Your task to perform on an android device: Search for bose soundsport free on newegg, select the first entry, and add it to the cart. Image 0: 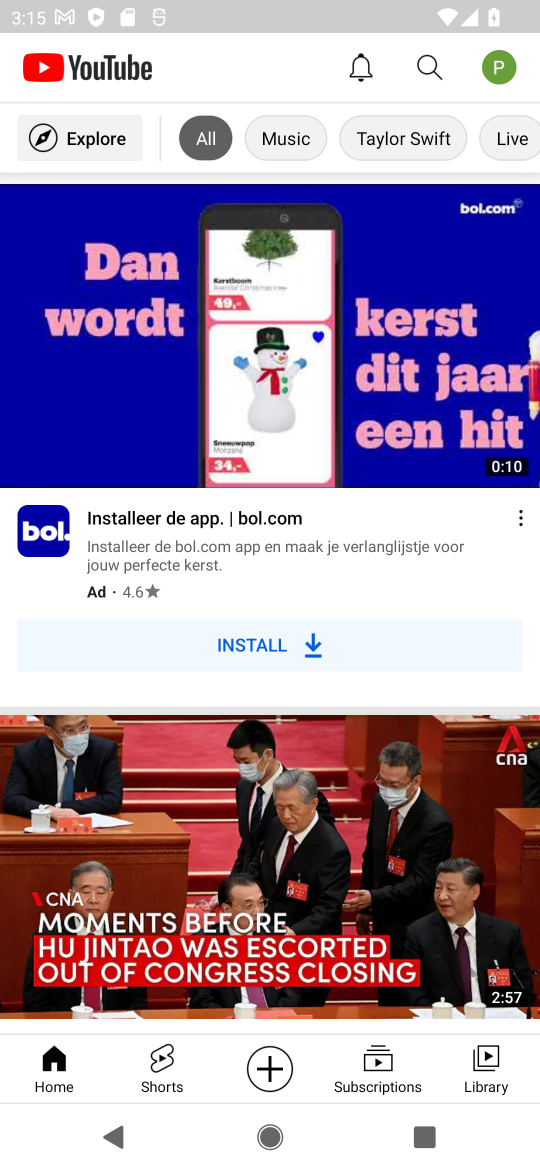
Step 0: press home button
Your task to perform on an android device: Search for bose soundsport free on newegg, select the first entry, and add it to the cart. Image 1: 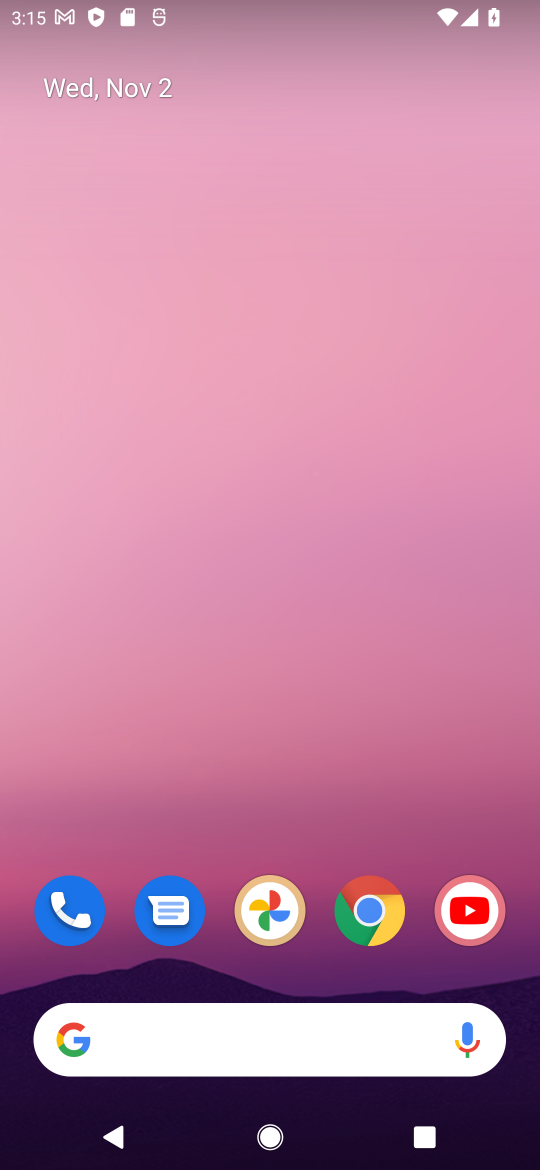
Step 1: click (362, 905)
Your task to perform on an android device: Search for bose soundsport free on newegg, select the first entry, and add it to the cart. Image 2: 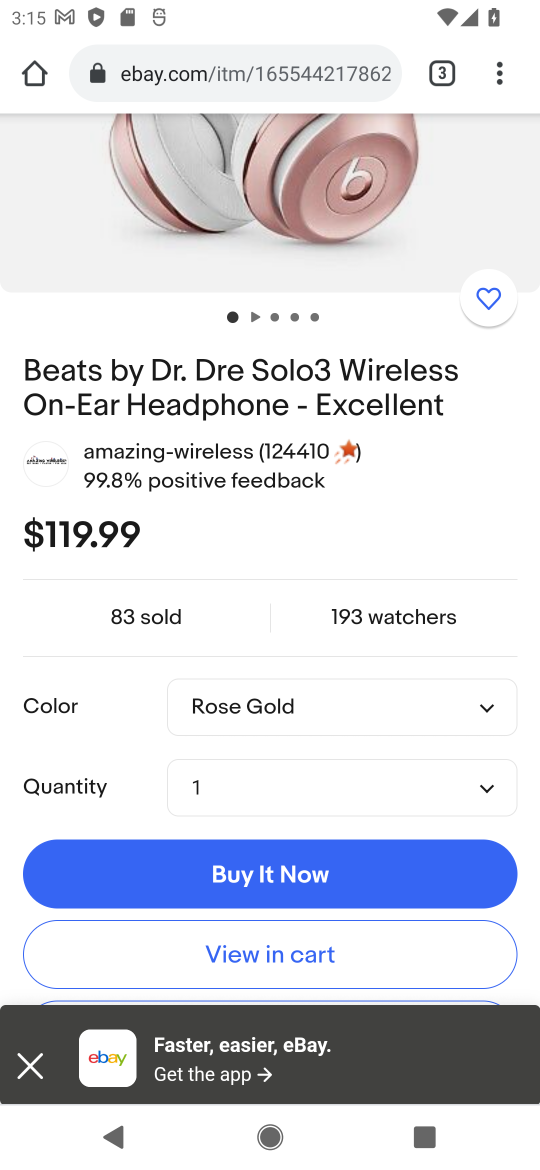
Step 2: click (440, 85)
Your task to perform on an android device: Search for bose soundsport free on newegg, select the first entry, and add it to the cart. Image 3: 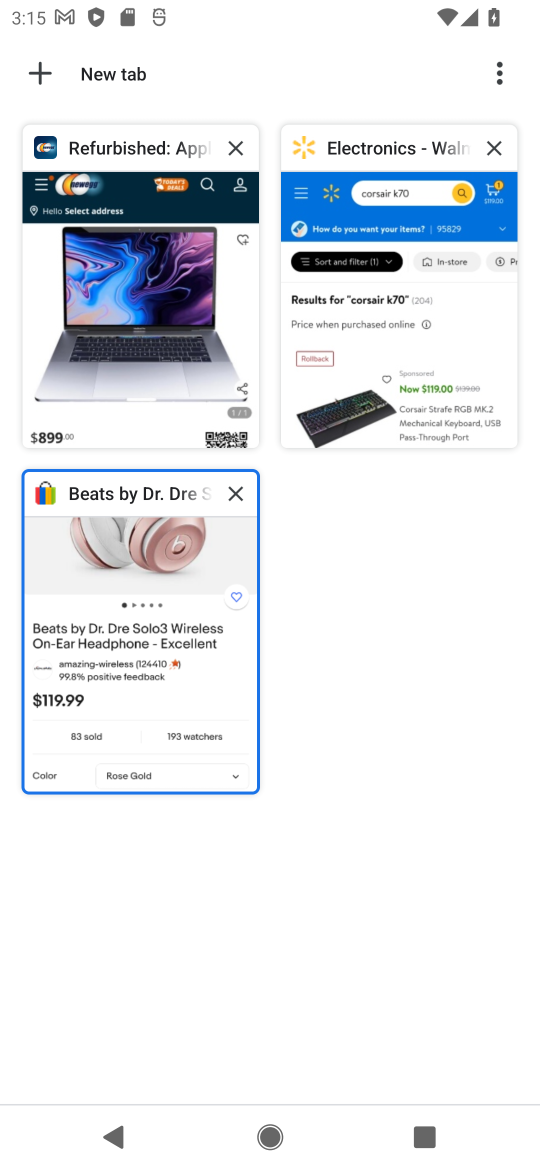
Step 3: click (135, 201)
Your task to perform on an android device: Search for bose soundsport free on newegg, select the first entry, and add it to the cart. Image 4: 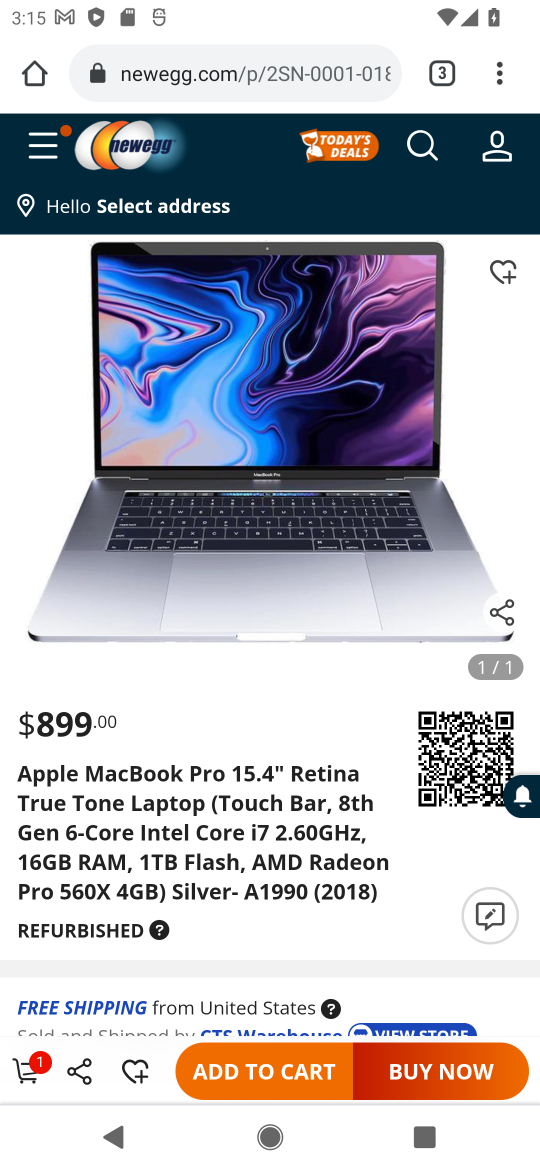
Step 4: click (425, 143)
Your task to perform on an android device: Search for bose soundsport free on newegg, select the first entry, and add it to the cart. Image 5: 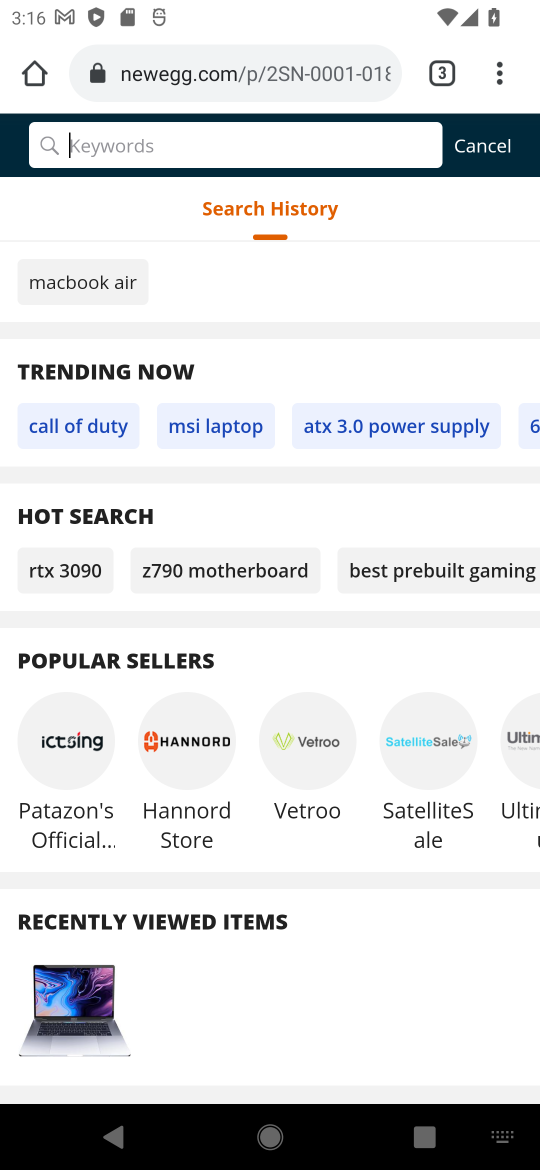
Step 5: type "bose soundsport free "
Your task to perform on an android device: Search for bose soundsport free on newegg, select the first entry, and add it to the cart. Image 6: 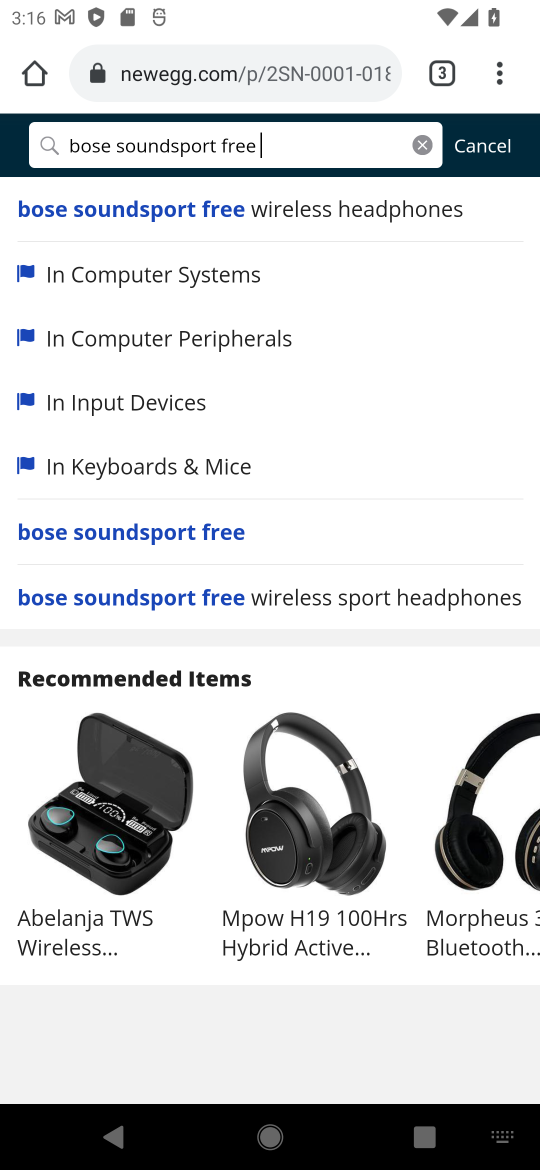
Step 6: click (196, 208)
Your task to perform on an android device: Search for bose soundsport free on newegg, select the first entry, and add it to the cart. Image 7: 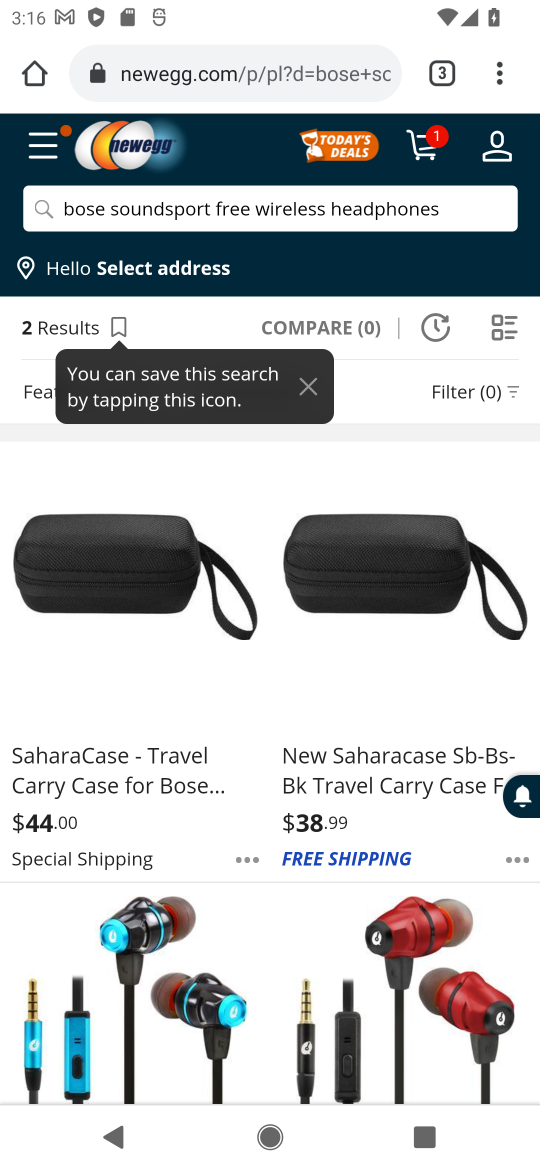
Step 7: click (76, 783)
Your task to perform on an android device: Search for bose soundsport free on newegg, select the first entry, and add it to the cart. Image 8: 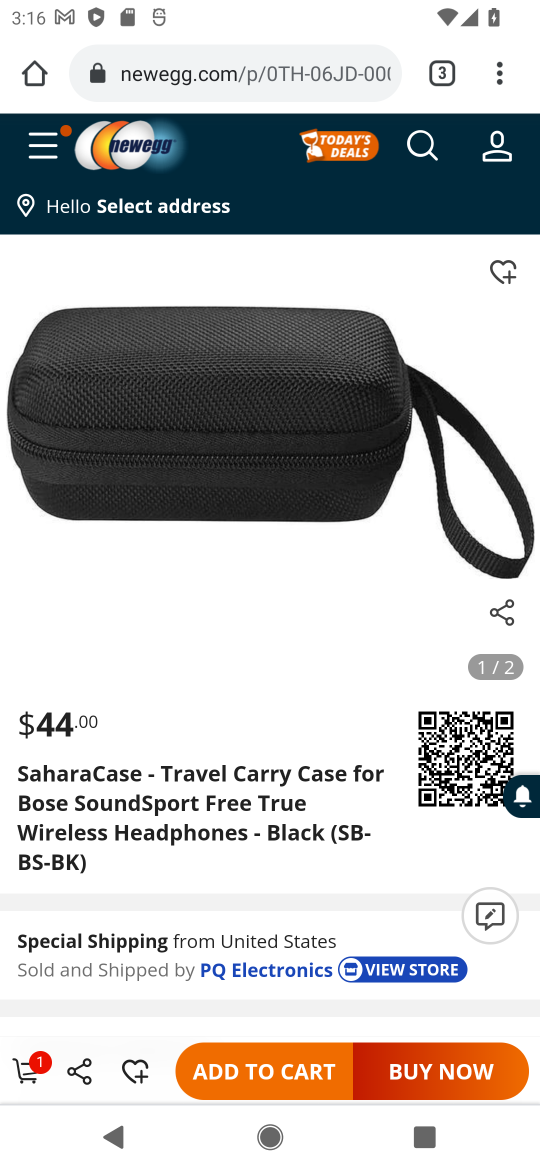
Step 8: click (234, 1079)
Your task to perform on an android device: Search for bose soundsport free on newegg, select the first entry, and add it to the cart. Image 9: 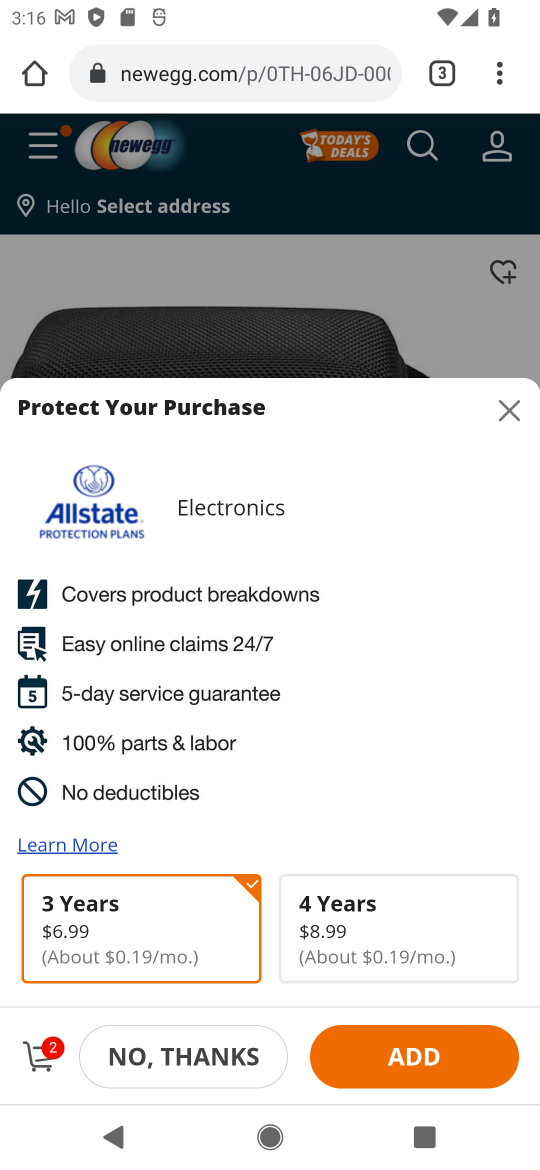
Step 9: task complete